Your task to perform on an android device: What's on my calendar today? Image 0: 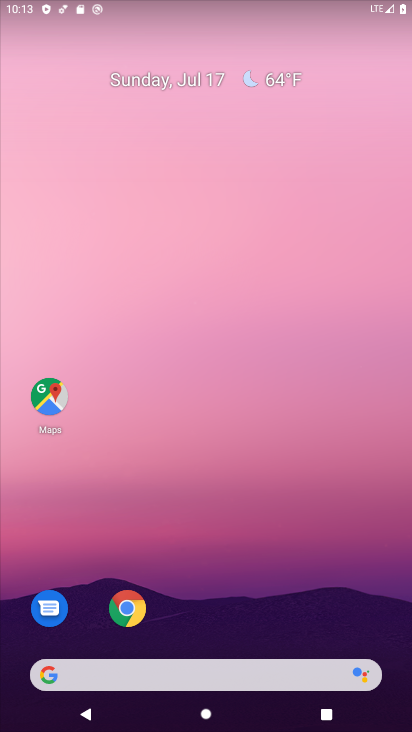
Step 0: drag from (349, 624) to (242, 1)
Your task to perform on an android device: What's on my calendar today? Image 1: 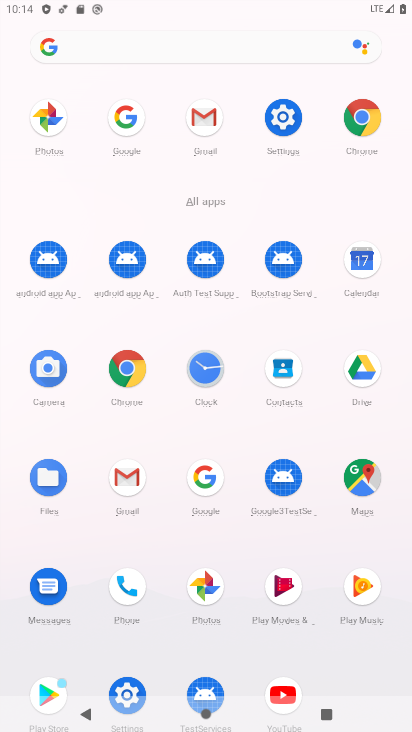
Step 1: click (366, 265)
Your task to perform on an android device: What's on my calendar today? Image 2: 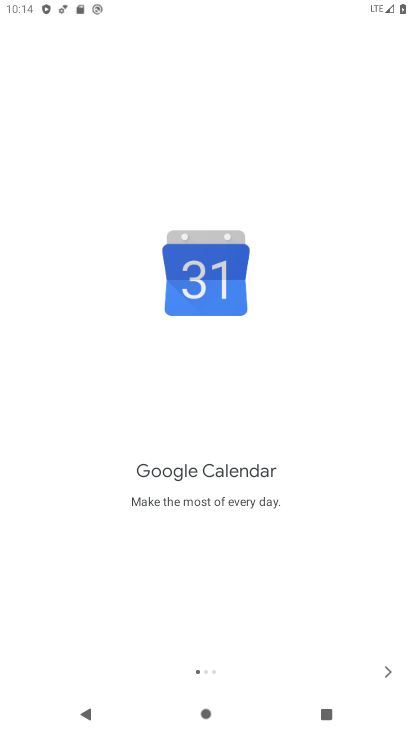
Step 2: click (387, 676)
Your task to perform on an android device: What's on my calendar today? Image 3: 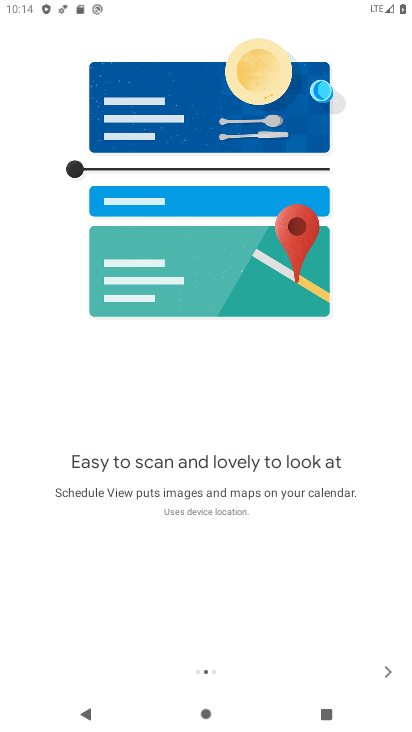
Step 3: click (387, 667)
Your task to perform on an android device: What's on my calendar today? Image 4: 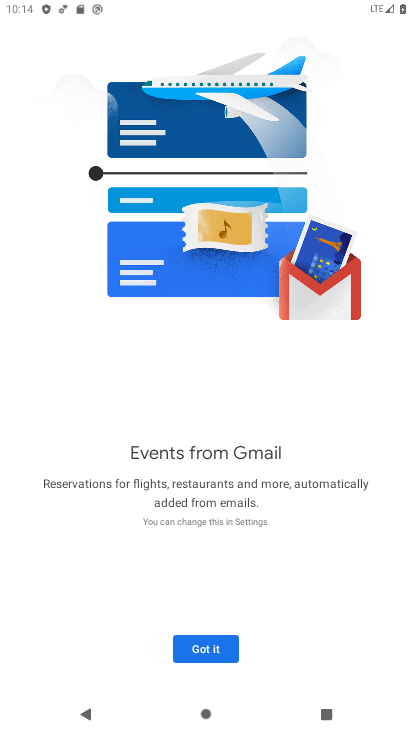
Step 4: click (194, 655)
Your task to perform on an android device: What's on my calendar today? Image 5: 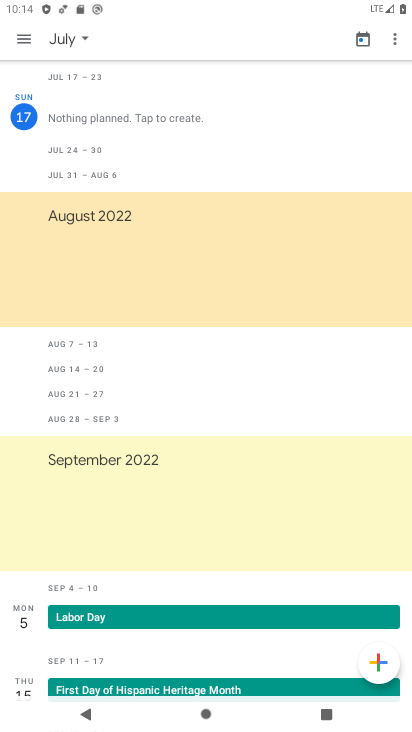
Step 5: click (64, 39)
Your task to perform on an android device: What's on my calendar today? Image 6: 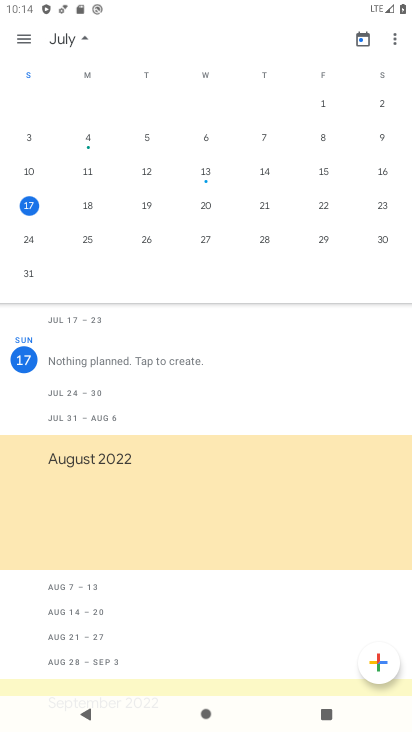
Step 6: click (87, 203)
Your task to perform on an android device: What's on my calendar today? Image 7: 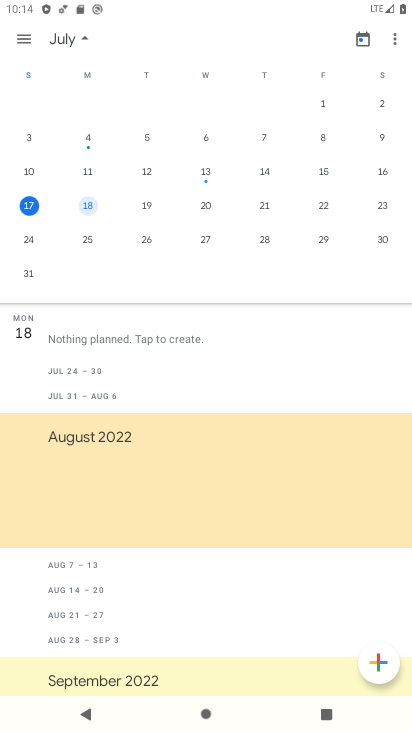
Step 7: click (180, 478)
Your task to perform on an android device: What's on my calendar today? Image 8: 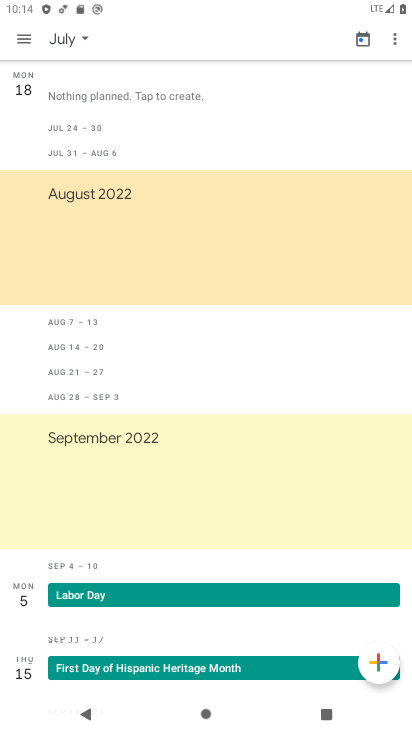
Step 8: task complete